Your task to perform on an android device: turn on showing notifications on the lock screen Image 0: 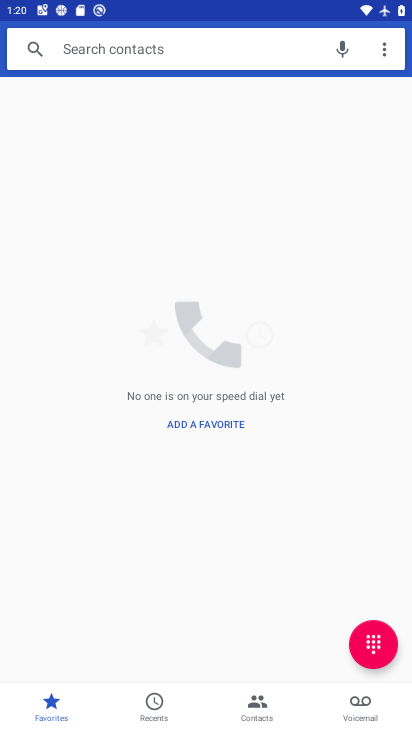
Step 0: press home button
Your task to perform on an android device: turn on showing notifications on the lock screen Image 1: 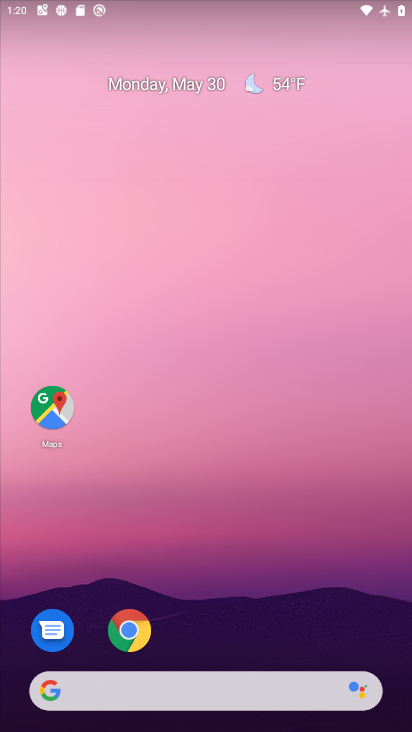
Step 1: drag from (128, 701) to (258, 2)
Your task to perform on an android device: turn on showing notifications on the lock screen Image 2: 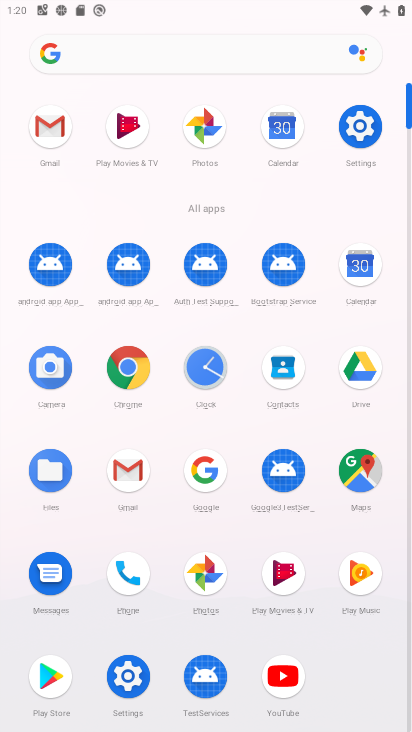
Step 2: click (361, 131)
Your task to perform on an android device: turn on showing notifications on the lock screen Image 3: 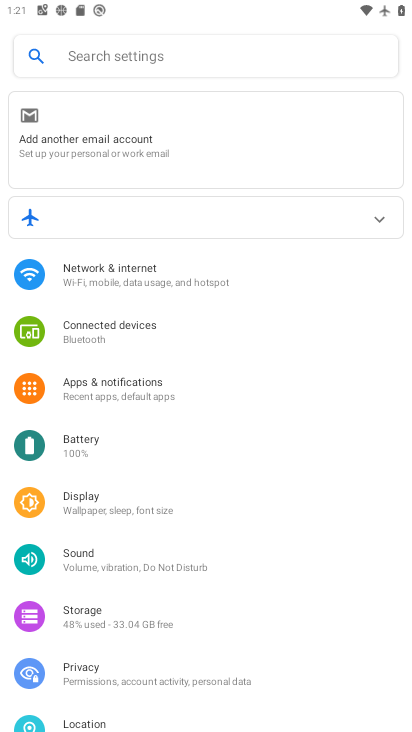
Step 3: click (130, 392)
Your task to perform on an android device: turn on showing notifications on the lock screen Image 4: 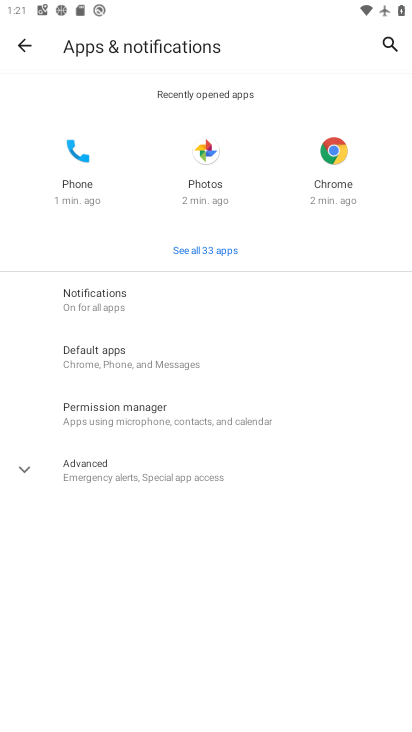
Step 4: click (103, 297)
Your task to perform on an android device: turn on showing notifications on the lock screen Image 5: 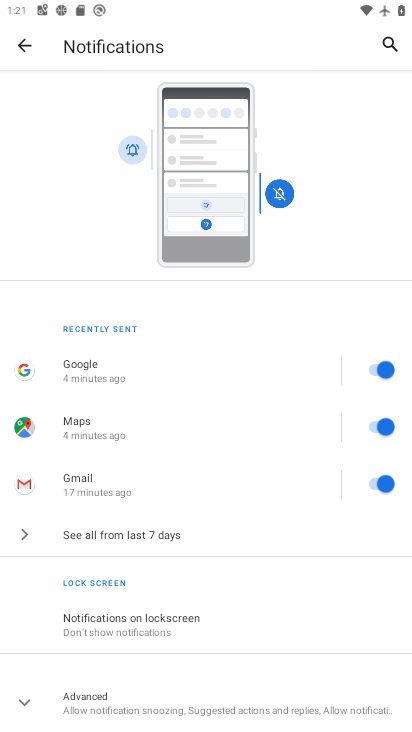
Step 5: drag from (182, 638) to (328, 298)
Your task to perform on an android device: turn on showing notifications on the lock screen Image 6: 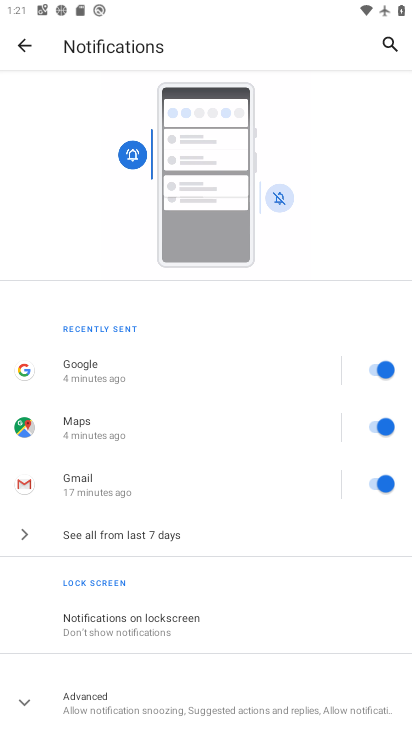
Step 6: click (159, 627)
Your task to perform on an android device: turn on showing notifications on the lock screen Image 7: 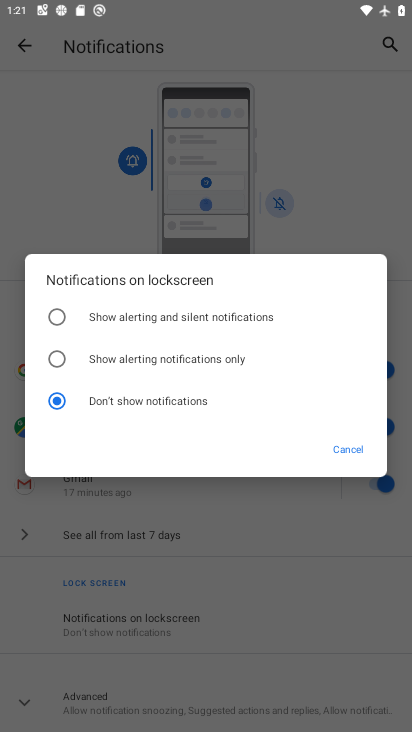
Step 7: click (59, 316)
Your task to perform on an android device: turn on showing notifications on the lock screen Image 8: 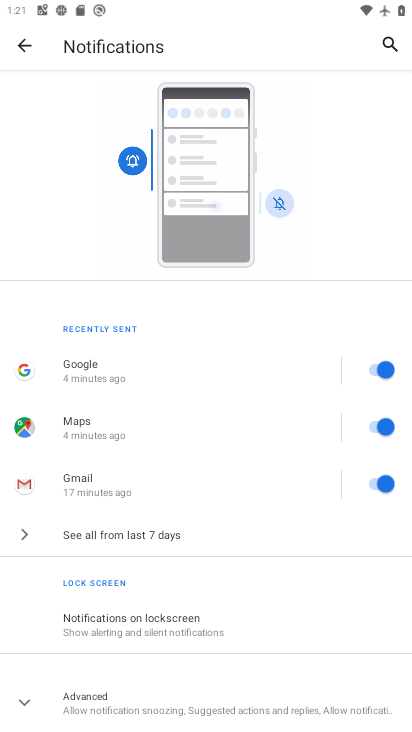
Step 8: task complete